Your task to perform on an android device: Open display settings Image 0: 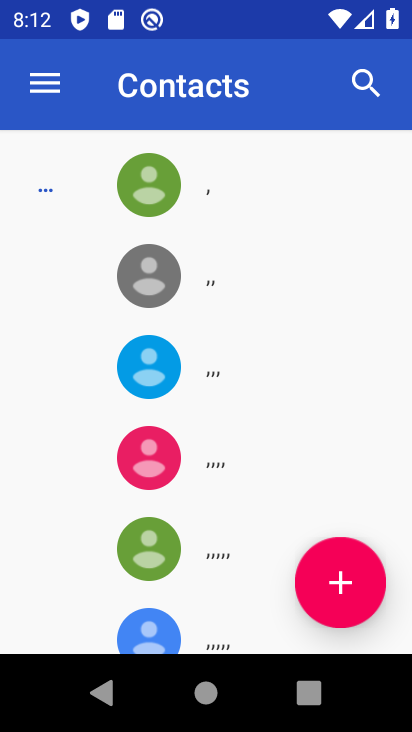
Step 0: press home button
Your task to perform on an android device: Open display settings Image 1: 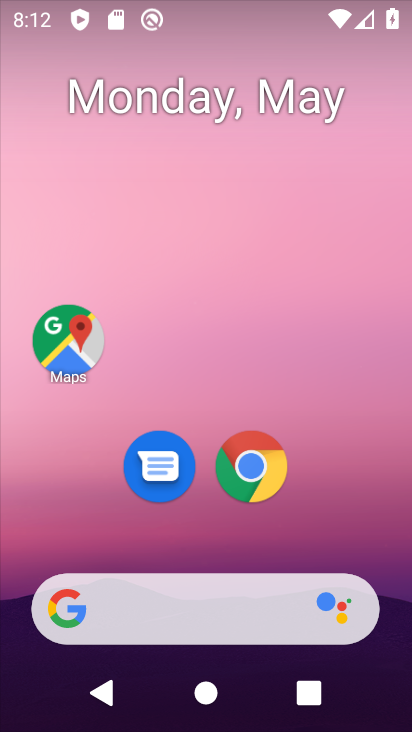
Step 1: drag from (260, 649) to (189, 2)
Your task to perform on an android device: Open display settings Image 2: 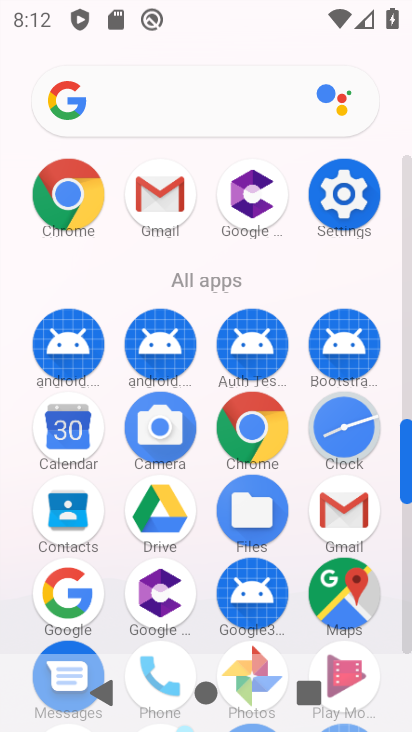
Step 2: click (340, 185)
Your task to perform on an android device: Open display settings Image 3: 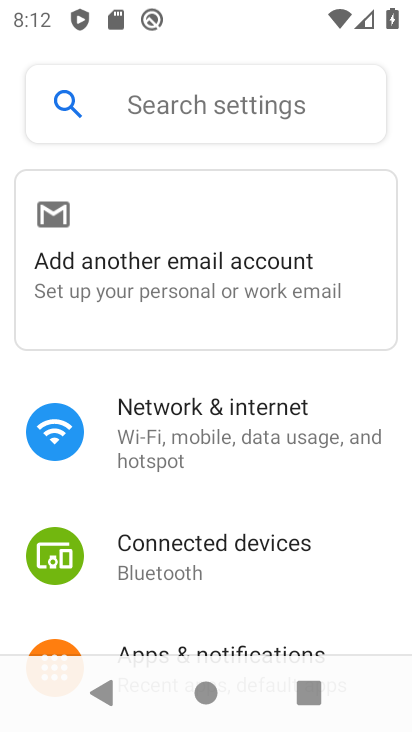
Step 3: drag from (218, 573) to (182, 304)
Your task to perform on an android device: Open display settings Image 4: 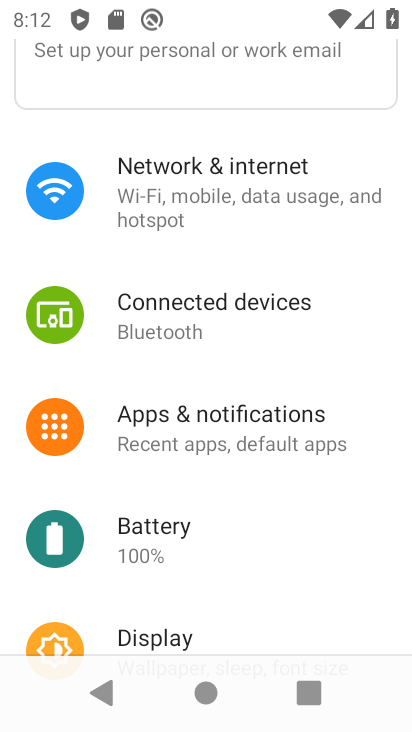
Step 4: drag from (197, 557) to (185, 348)
Your task to perform on an android device: Open display settings Image 5: 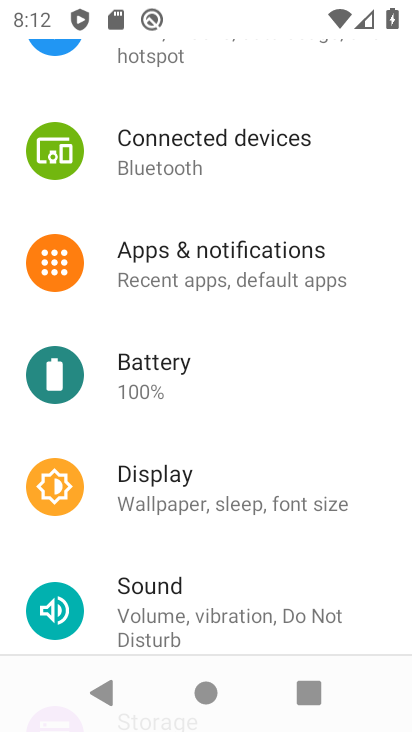
Step 5: click (164, 468)
Your task to perform on an android device: Open display settings Image 6: 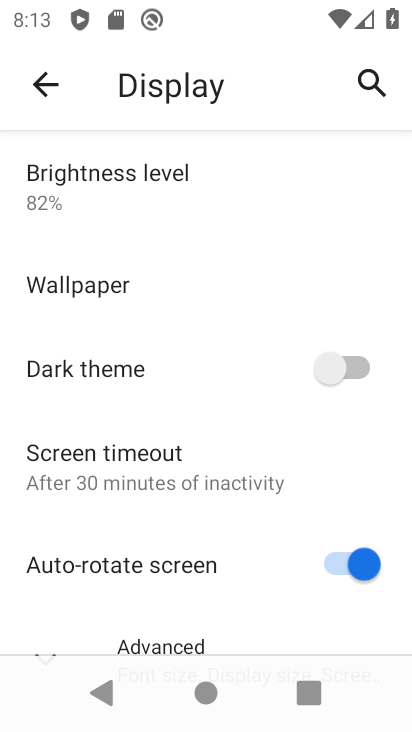
Step 6: task complete